Your task to perform on an android device: star an email in the gmail app Image 0: 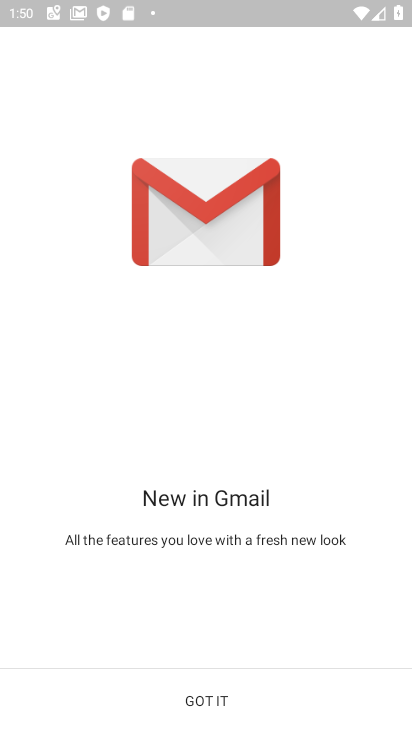
Step 0: press home button
Your task to perform on an android device: star an email in the gmail app Image 1: 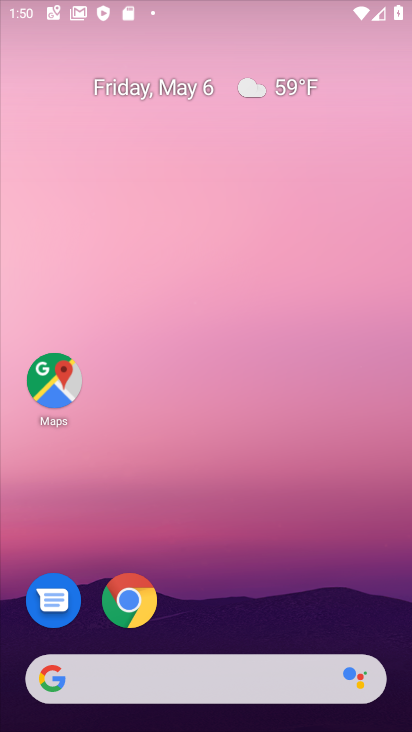
Step 1: drag from (225, 413) to (202, 45)
Your task to perform on an android device: star an email in the gmail app Image 2: 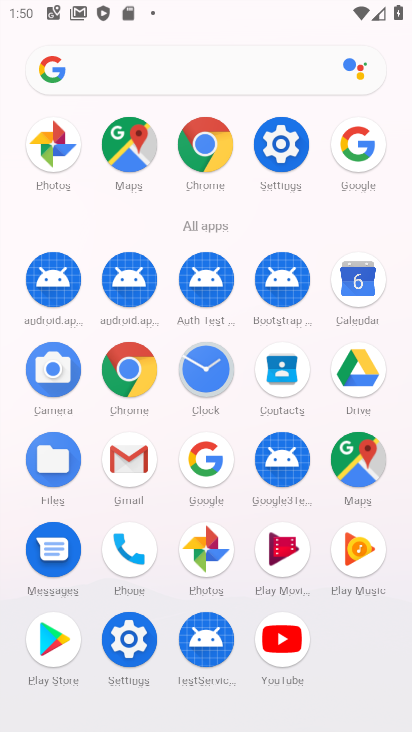
Step 2: click (128, 458)
Your task to perform on an android device: star an email in the gmail app Image 3: 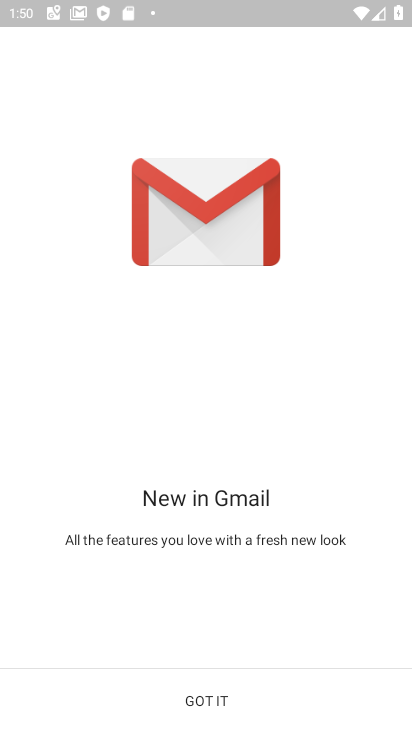
Step 3: click (201, 688)
Your task to perform on an android device: star an email in the gmail app Image 4: 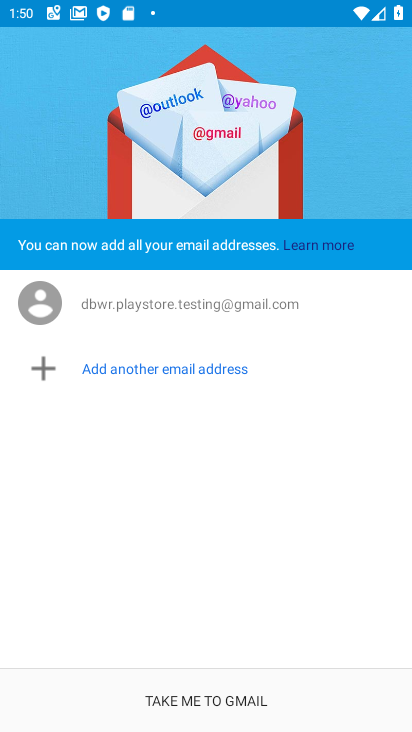
Step 4: click (207, 711)
Your task to perform on an android device: star an email in the gmail app Image 5: 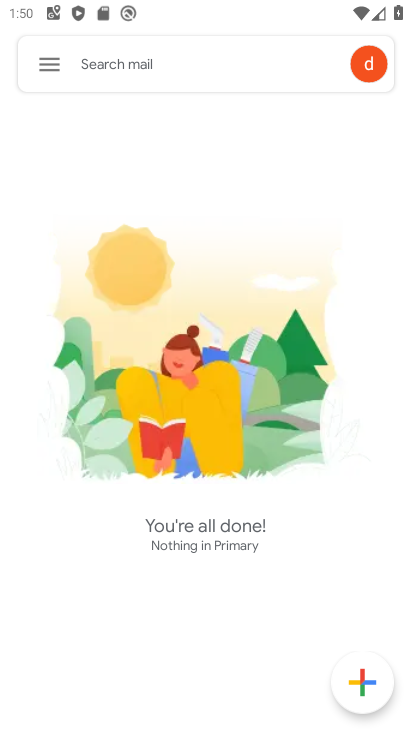
Step 5: task complete